Your task to perform on an android device: When is my next meeting? Image 0: 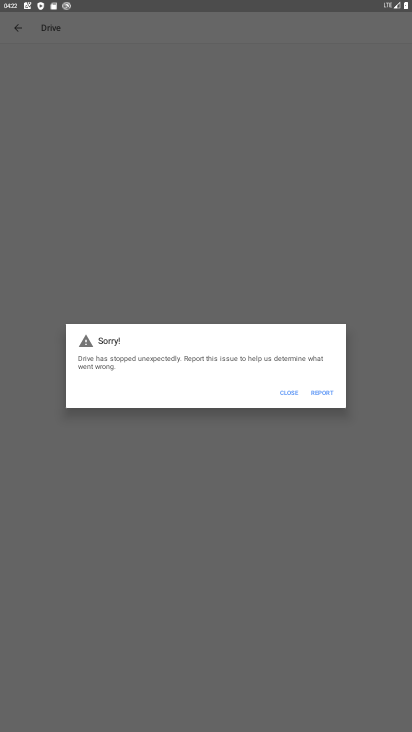
Step 0: press home button
Your task to perform on an android device: When is my next meeting? Image 1: 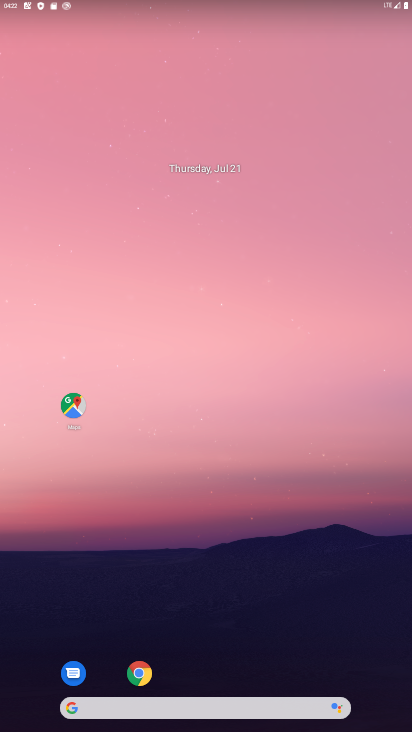
Step 1: drag from (216, 651) to (155, 156)
Your task to perform on an android device: When is my next meeting? Image 2: 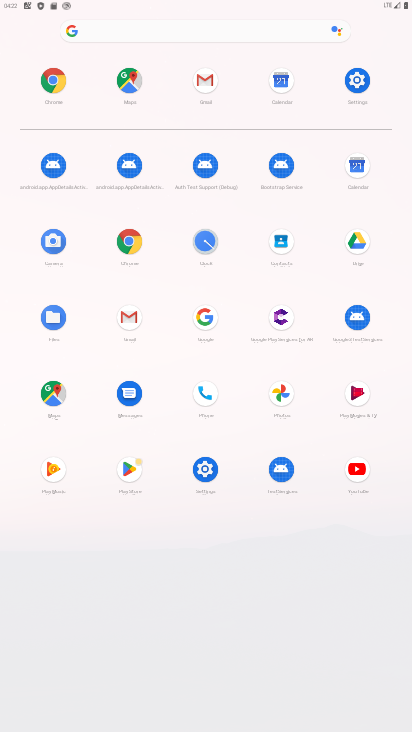
Step 2: click (358, 155)
Your task to perform on an android device: When is my next meeting? Image 3: 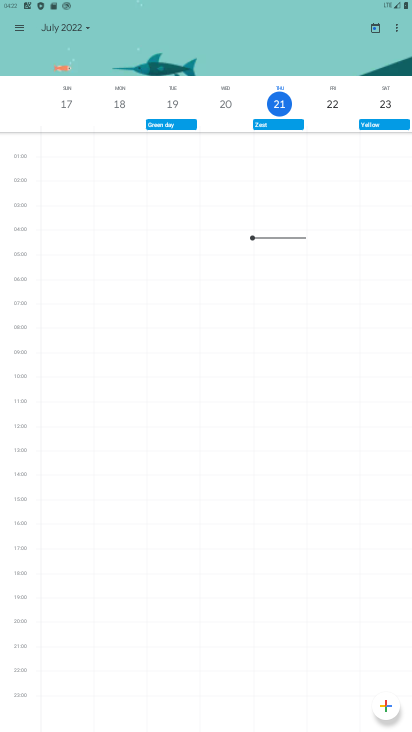
Step 3: click (273, 94)
Your task to perform on an android device: When is my next meeting? Image 4: 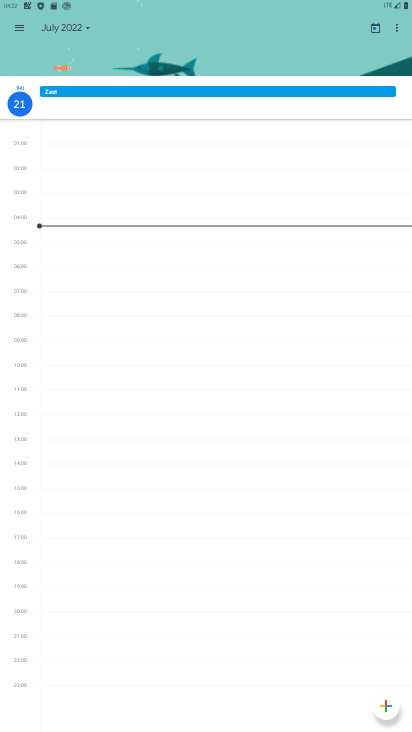
Step 4: click (27, 25)
Your task to perform on an android device: When is my next meeting? Image 5: 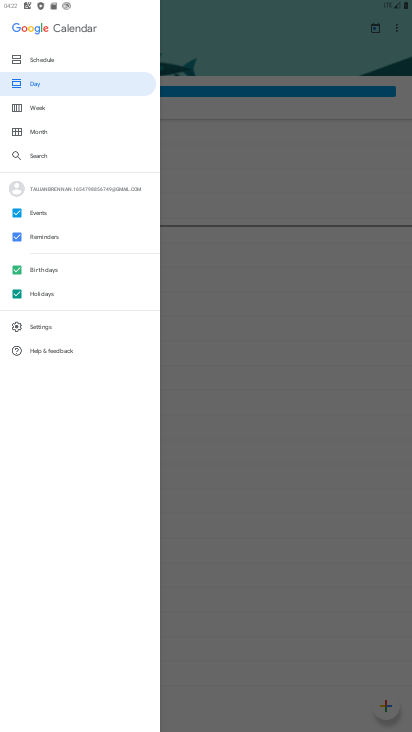
Step 5: click (56, 111)
Your task to perform on an android device: When is my next meeting? Image 6: 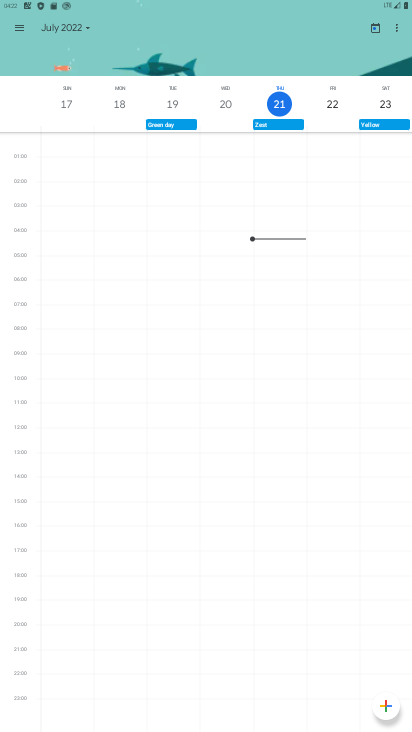
Step 6: task complete